Your task to perform on an android device: Open Wikipedia Image 0: 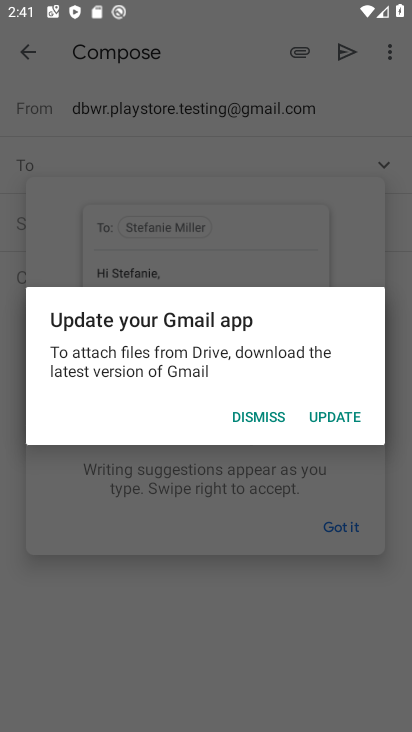
Step 0: press home button
Your task to perform on an android device: Open Wikipedia Image 1: 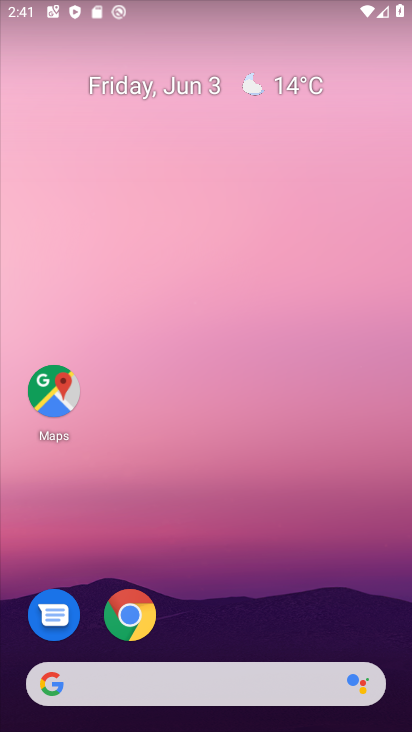
Step 1: click (51, 680)
Your task to perform on an android device: Open Wikipedia Image 2: 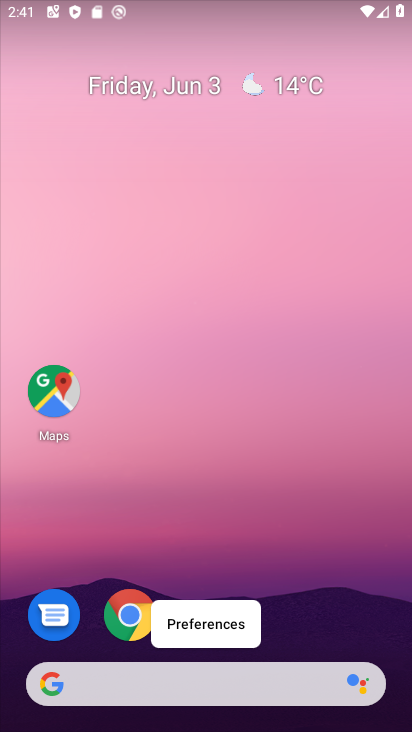
Step 2: click (51, 678)
Your task to perform on an android device: Open Wikipedia Image 3: 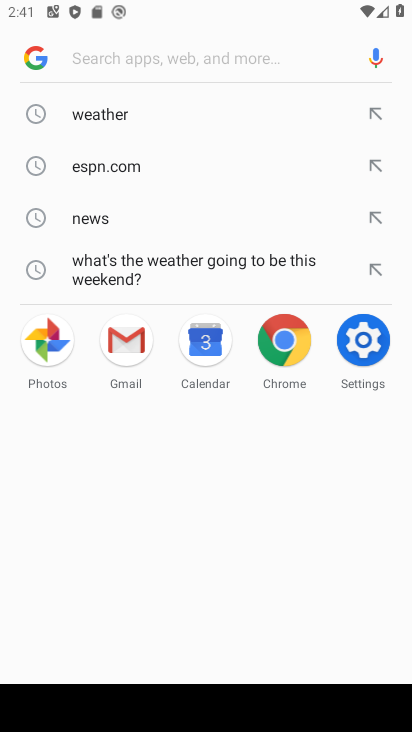
Step 3: type "Wikipedia"
Your task to perform on an android device: Open Wikipedia Image 4: 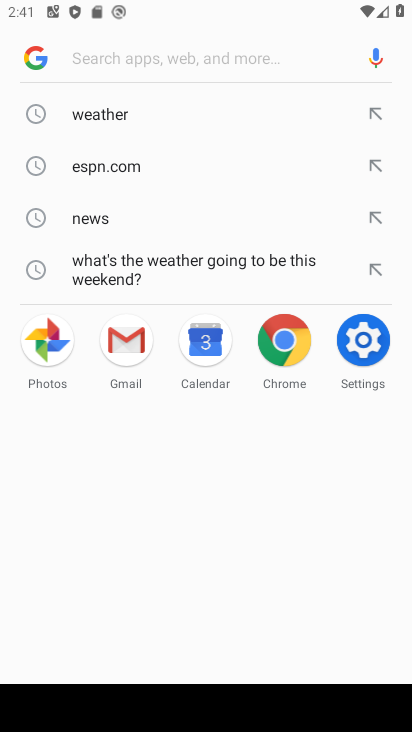
Step 4: click (195, 62)
Your task to perform on an android device: Open Wikipedia Image 5: 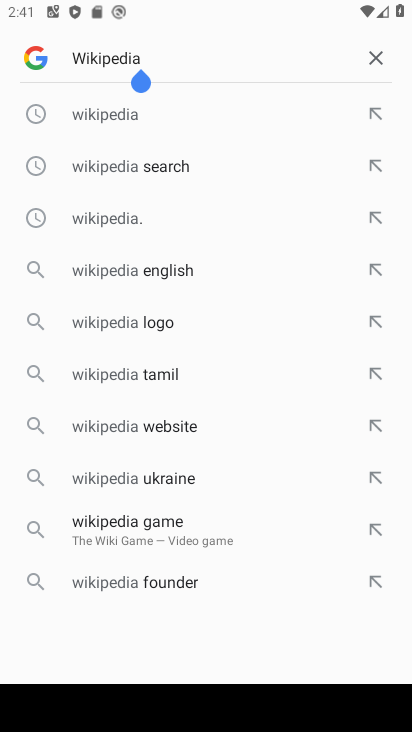
Step 5: click (108, 116)
Your task to perform on an android device: Open Wikipedia Image 6: 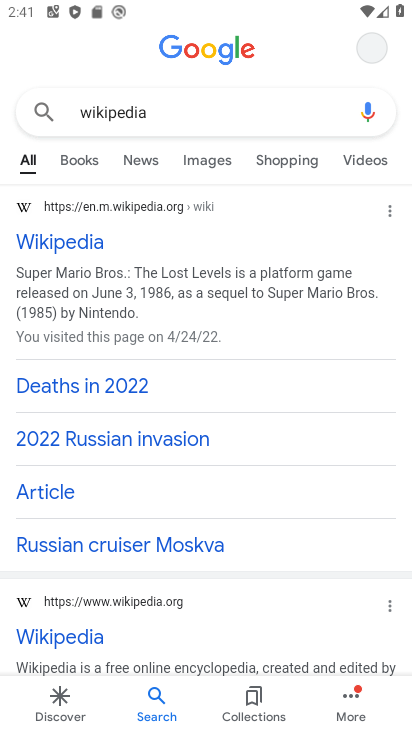
Step 6: click (53, 243)
Your task to perform on an android device: Open Wikipedia Image 7: 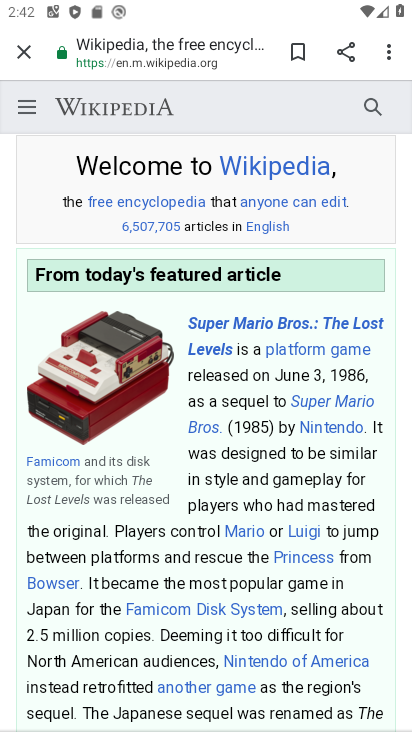
Step 7: task complete